Your task to perform on an android device: What's the weather? Image 0: 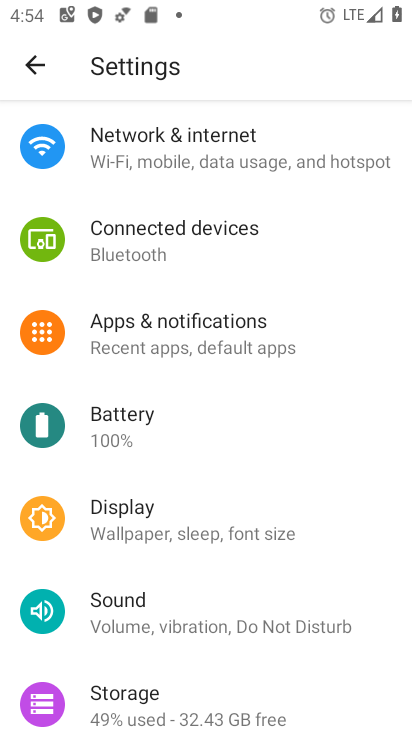
Step 0: press home button
Your task to perform on an android device: What's the weather? Image 1: 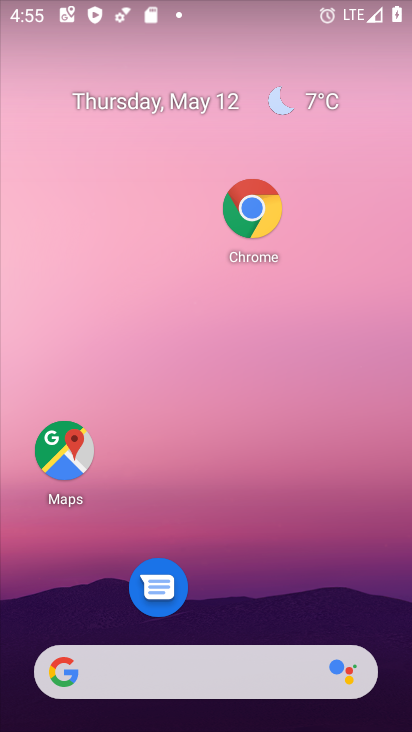
Step 1: click (233, 683)
Your task to perform on an android device: What's the weather? Image 2: 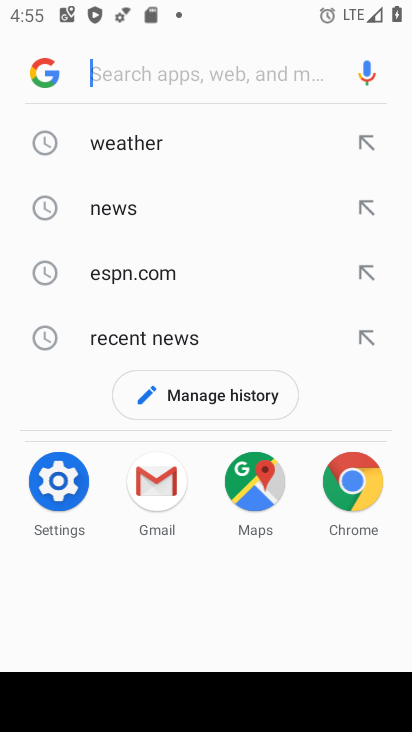
Step 2: click (120, 151)
Your task to perform on an android device: What's the weather? Image 3: 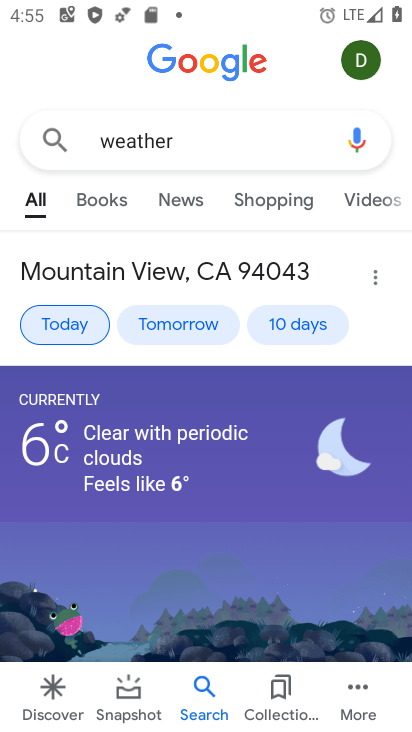
Step 3: task complete